Your task to perform on an android device: Do I have any events tomorrow? Image 0: 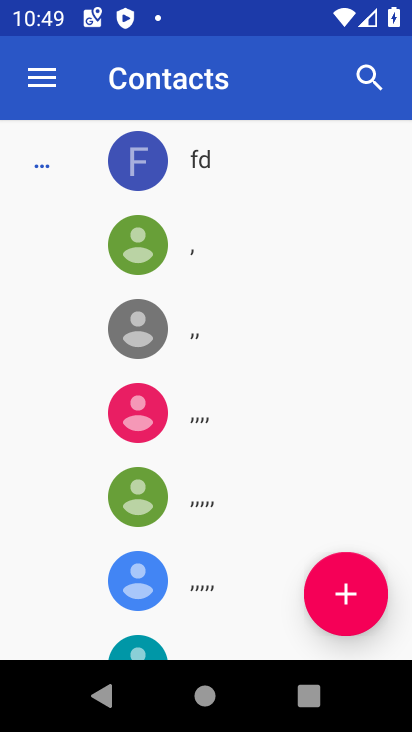
Step 0: press back button
Your task to perform on an android device: Do I have any events tomorrow? Image 1: 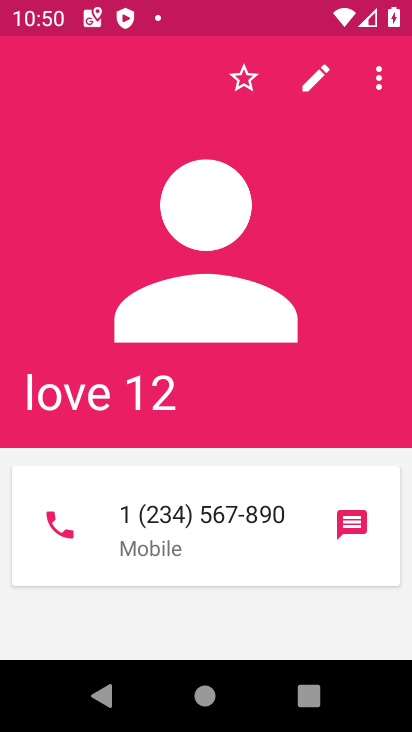
Step 1: press home button
Your task to perform on an android device: Do I have any events tomorrow? Image 2: 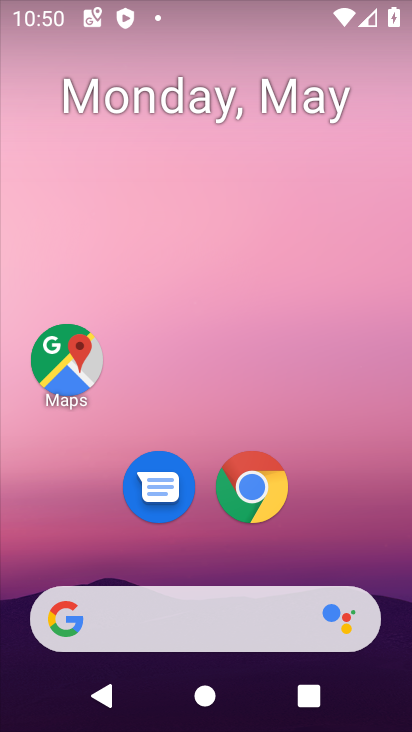
Step 2: drag from (376, 544) to (400, 203)
Your task to perform on an android device: Do I have any events tomorrow? Image 3: 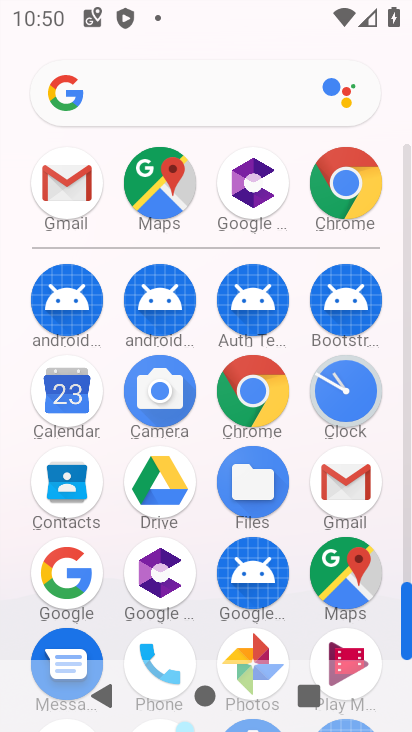
Step 3: click (70, 411)
Your task to perform on an android device: Do I have any events tomorrow? Image 4: 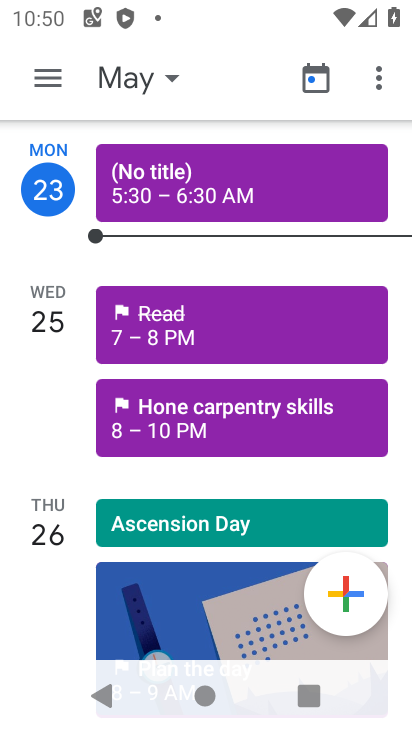
Step 4: click (211, 346)
Your task to perform on an android device: Do I have any events tomorrow? Image 5: 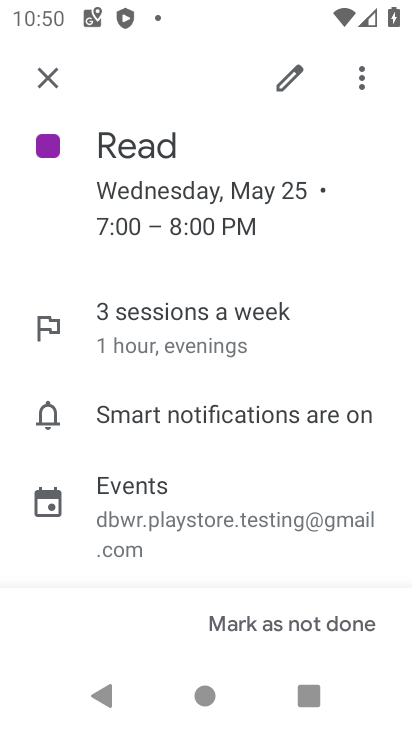
Step 5: task complete